Your task to perform on an android device: Open internet settings Image 0: 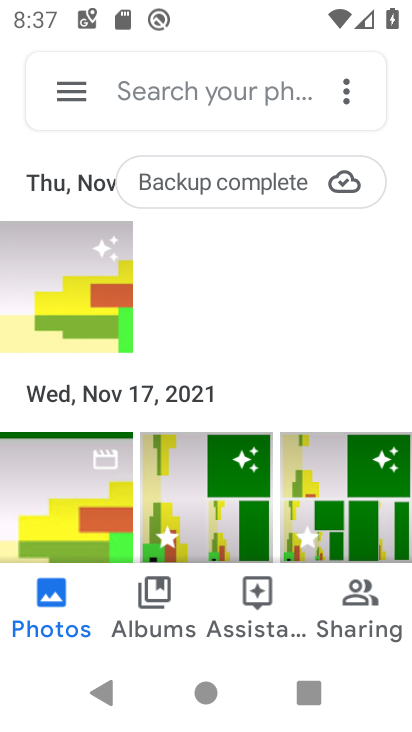
Step 0: press home button
Your task to perform on an android device: Open internet settings Image 1: 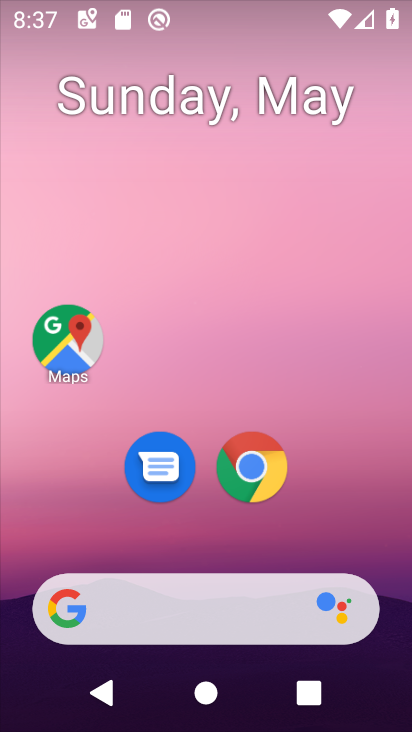
Step 1: drag from (330, 514) to (335, 134)
Your task to perform on an android device: Open internet settings Image 2: 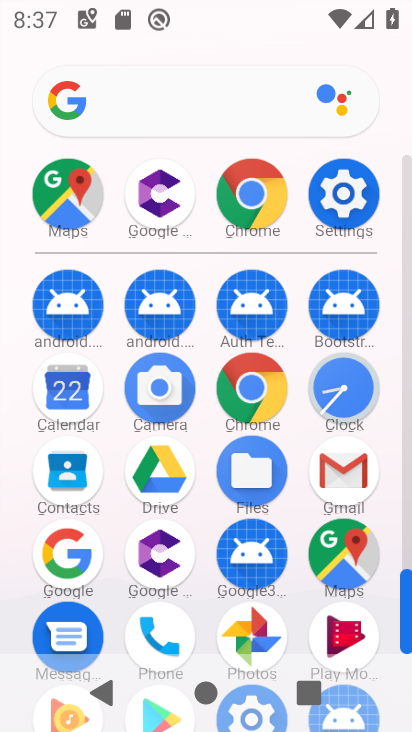
Step 2: click (338, 183)
Your task to perform on an android device: Open internet settings Image 3: 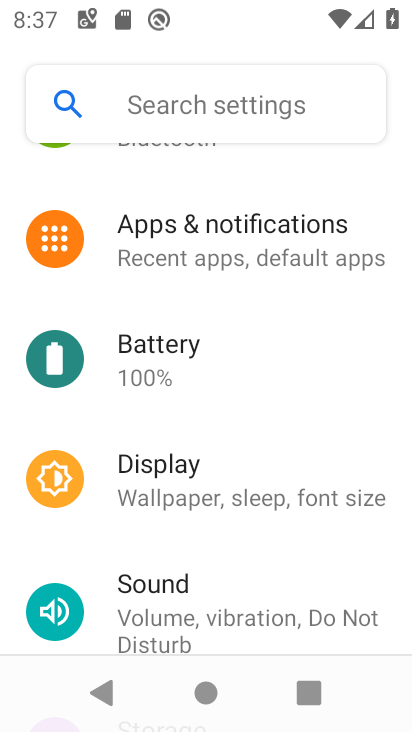
Step 3: drag from (288, 524) to (267, 211)
Your task to perform on an android device: Open internet settings Image 4: 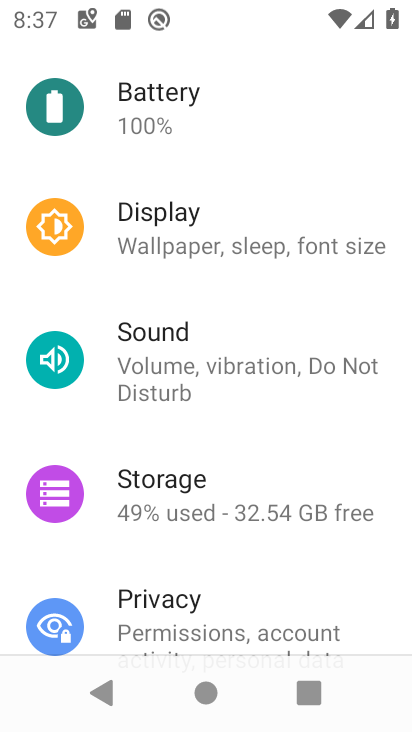
Step 4: drag from (302, 133) to (290, 558)
Your task to perform on an android device: Open internet settings Image 5: 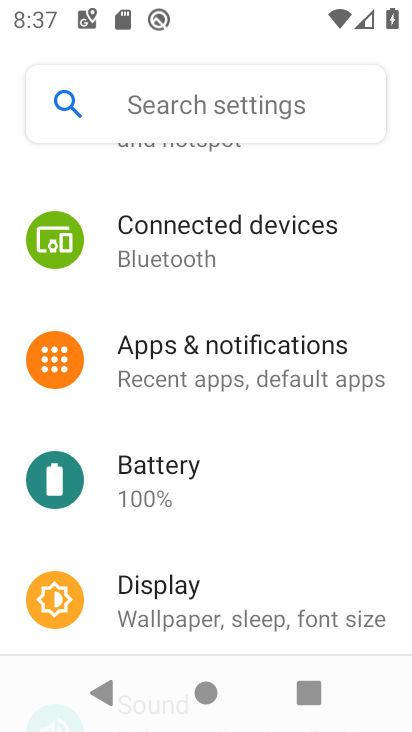
Step 5: drag from (308, 229) to (303, 604)
Your task to perform on an android device: Open internet settings Image 6: 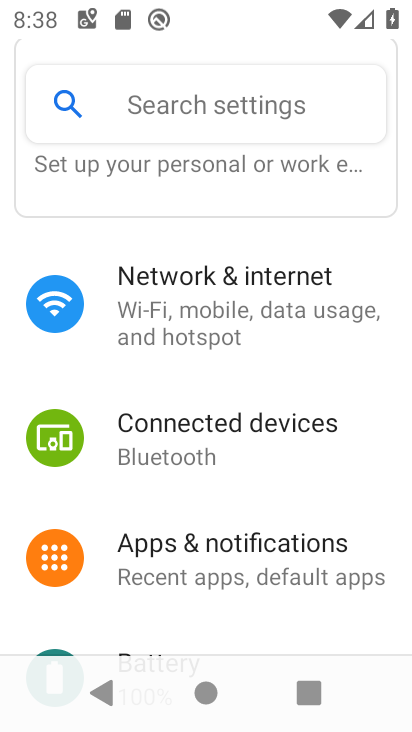
Step 6: click (322, 308)
Your task to perform on an android device: Open internet settings Image 7: 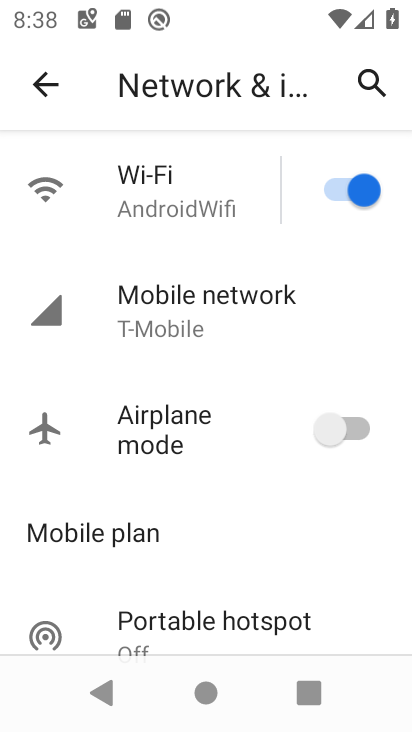
Step 7: click (210, 318)
Your task to perform on an android device: Open internet settings Image 8: 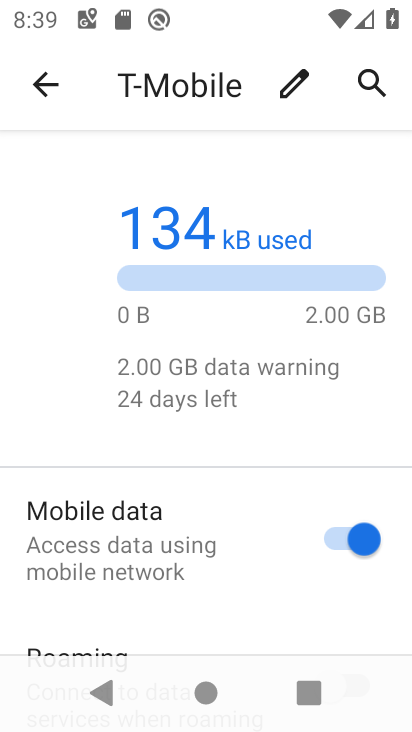
Step 8: task complete